Your task to perform on an android device: choose inbox layout in the gmail app Image 0: 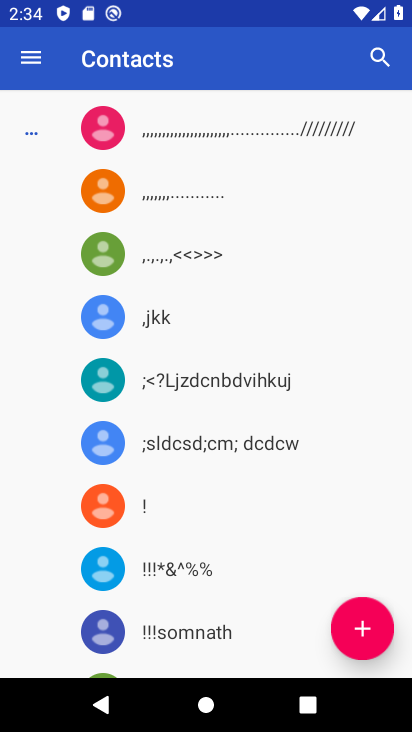
Step 0: press home button
Your task to perform on an android device: choose inbox layout in the gmail app Image 1: 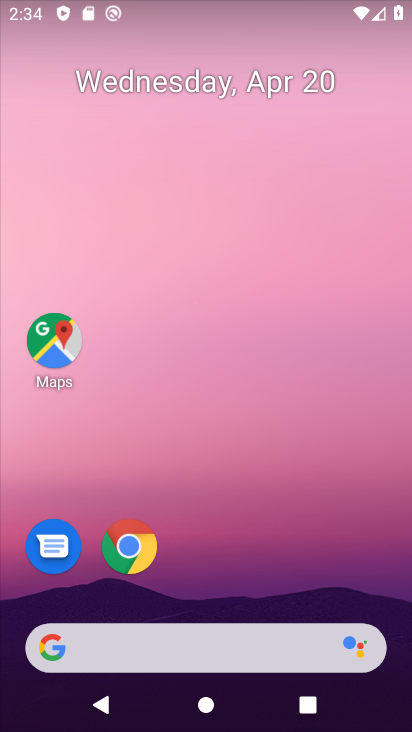
Step 1: drag from (267, 538) to (302, 35)
Your task to perform on an android device: choose inbox layout in the gmail app Image 2: 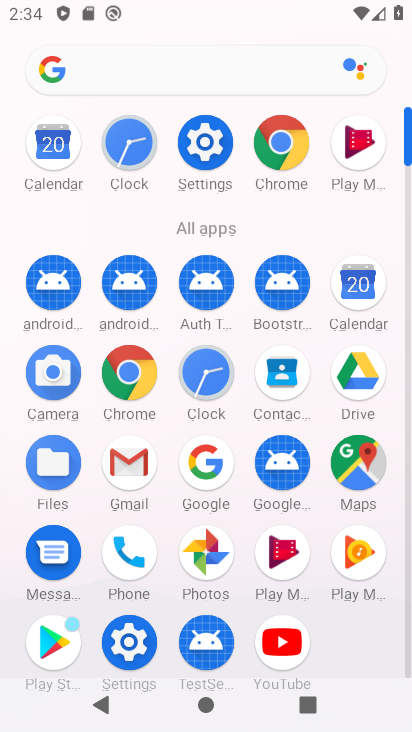
Step 2: click (129, 466)
Your task to perform on an android device: choose inbox layout in the gmail app Image 3: 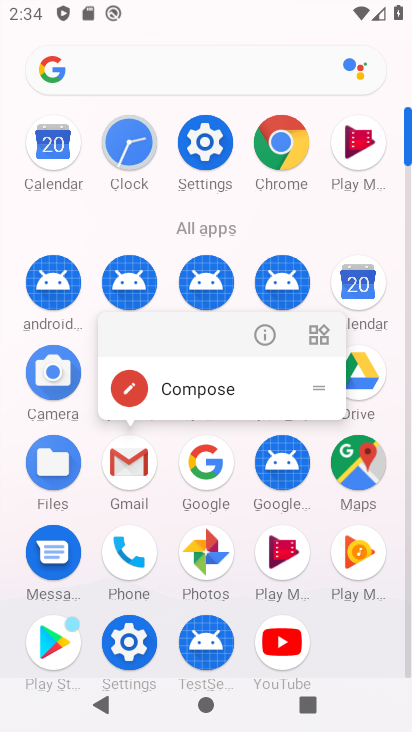
Step 3: click (128, 476)
Your task to perform on an android device: choose inbox layout in the gmail app Image 4: 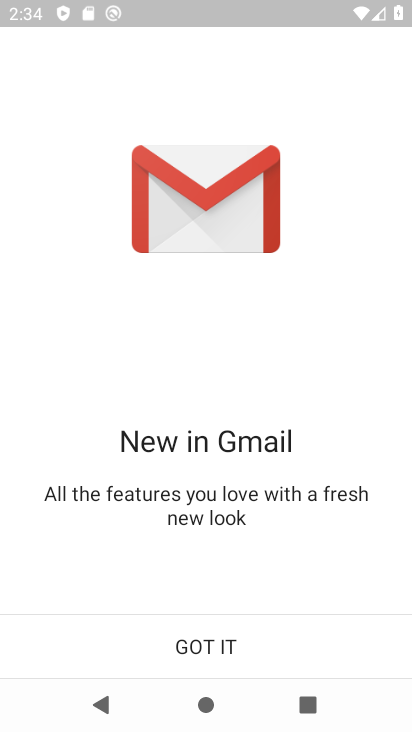
Step 4: click (202, 654)
Your task to perform on an android device: choose inbox layout in the gmail app Image 5: 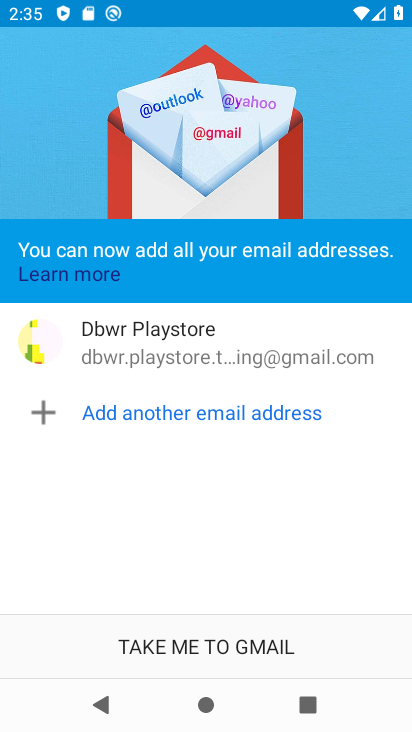
Step 5: click (203, 653)
Your task to perform on an android device: choose inbox layout in the gmail app Image 6: 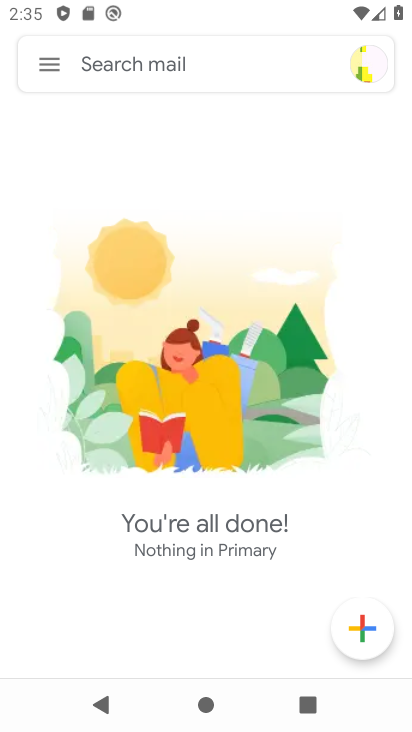
Step 6: click (44, 58)
Your task to perform on an android device: choose inbox layout in the gmail app Image 7: 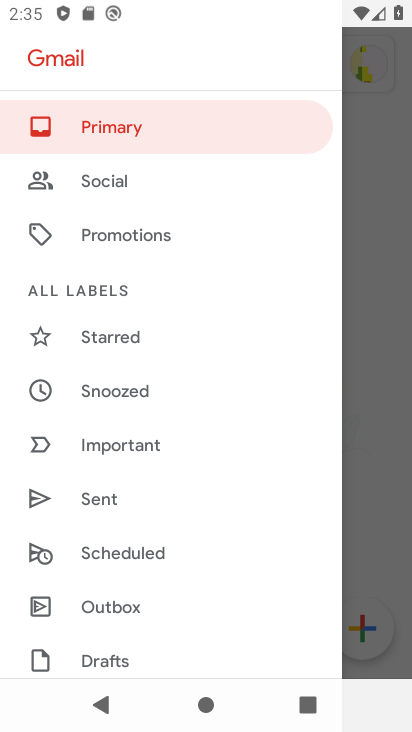
Step 7: drag from (141, 656) to (192, 174)
Your task to perform on an android device: choose inbox layout in the gmail app Image 8: 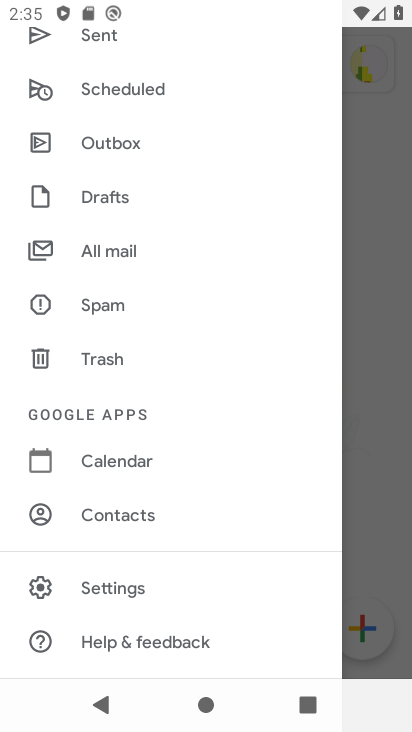
Step 8: click (115, 588)
Your task to perform on an android device: choose inbox layout in the gmail app Image 9: 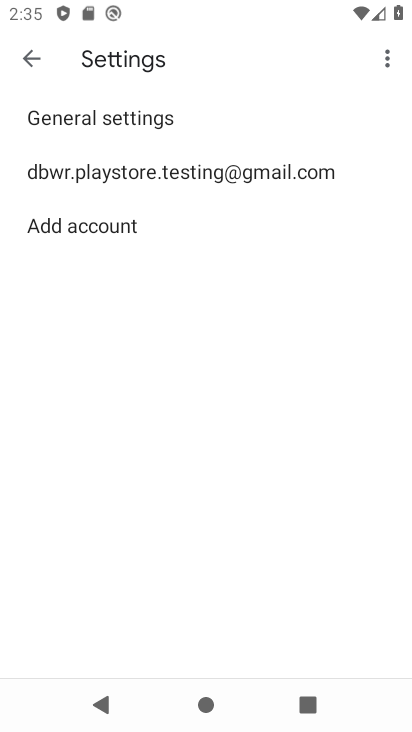
Step 9: click (147, 185)
Your task to perform on an android device: choose inbox layout in the gmail app Image 10: 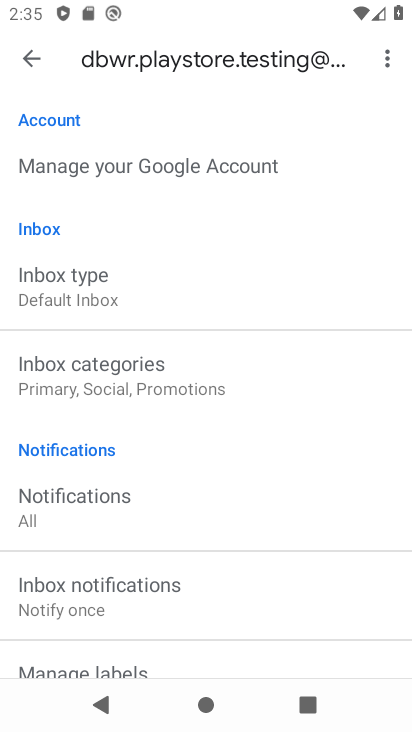
Step 10: drag from (188, 613) to (226, 582)
Your task to perform on an android device: choose inbox layout in the gmail app Image 11: 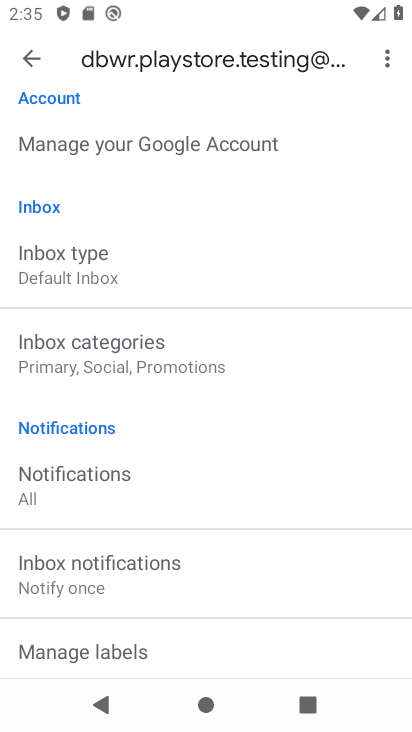
Step 11: click (107, 268)
Your task to perform on an android device: choose inbox layout in the gmail app Image 12: 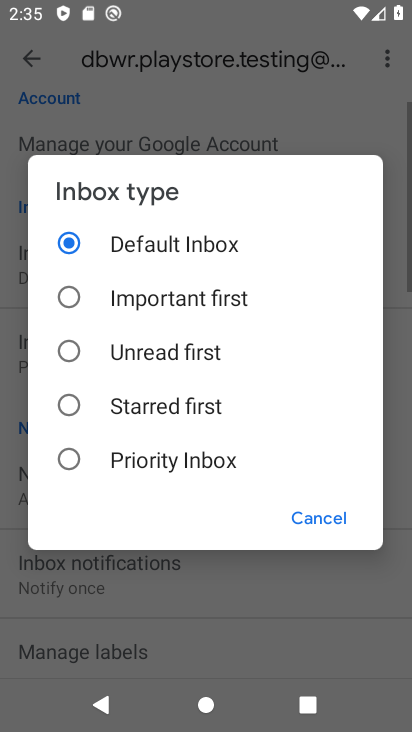
Step 12: click (166, 462)
Your task to perform on an android device: choose inbox layout in the gmail app Image 13: 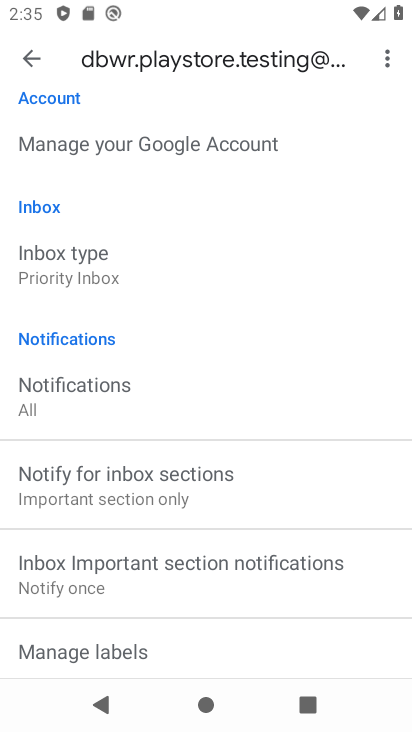
Step 13: click (76, 283)
Your task to perform on an android device: choose inbox layout in the gmail app Image 14: 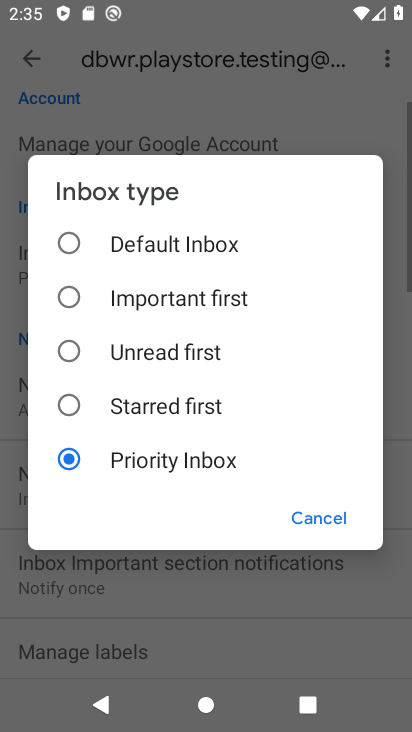
Step 14: click (170, 252)
Your task to perform on an android device: choose inbox layout in the gmail app Image 15: 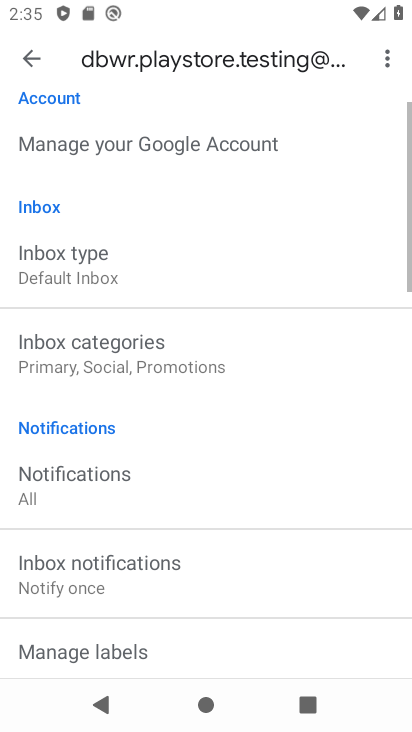
Step 15: task complete